Your task to perform on an android device: turn notification dots on Image 0: 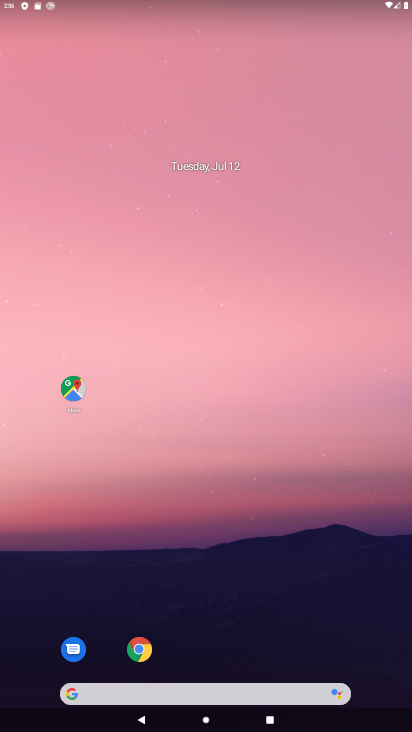
Step 0: drag from (151, 692) to (211, 403)
Your task to perform on an android device: turn notification dots on Image 1: 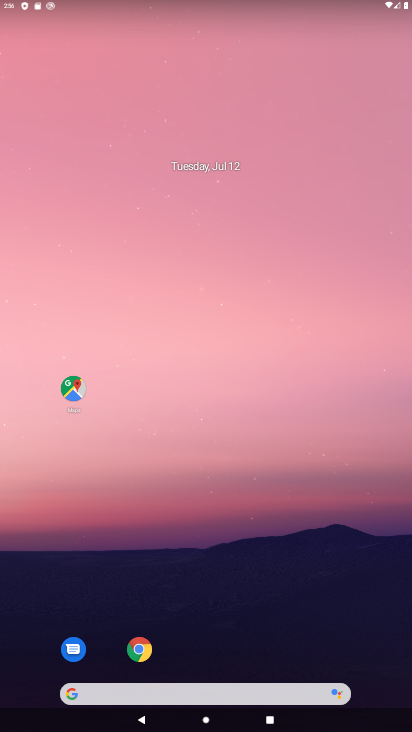
Step 1: drag from (252, 681) to (250, 291)
Your task to perform on an android device: turn notification dots on Image 2: 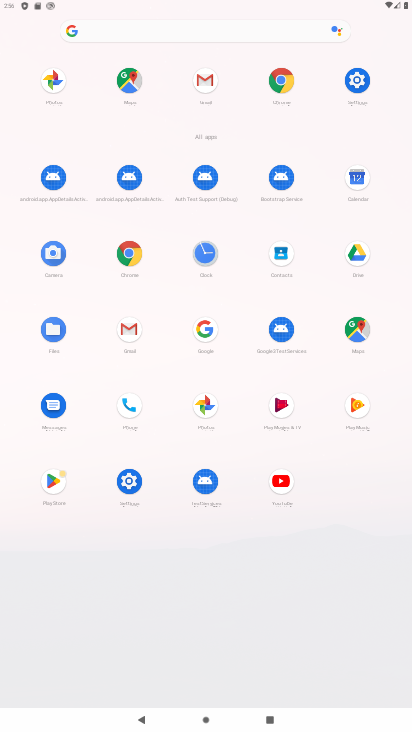
Step 2: click (363, 76)
Your task to perform on an android device: turn notification dots on Image 3: 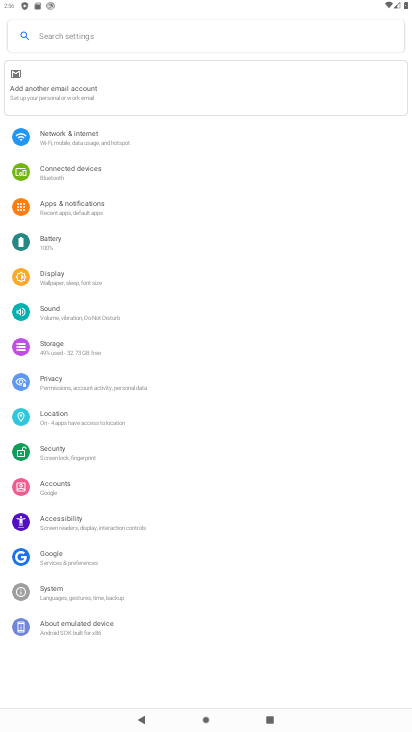
Step 3: click (65, 204)
Your task to perform on an android device: turn notification dots on Image 4: 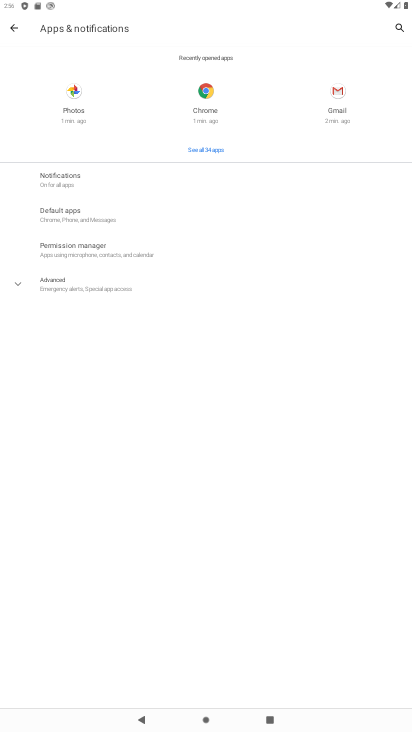
Step 4: click (60, 182)
Your task to perform on an android device: turn notification dots on Image 5: 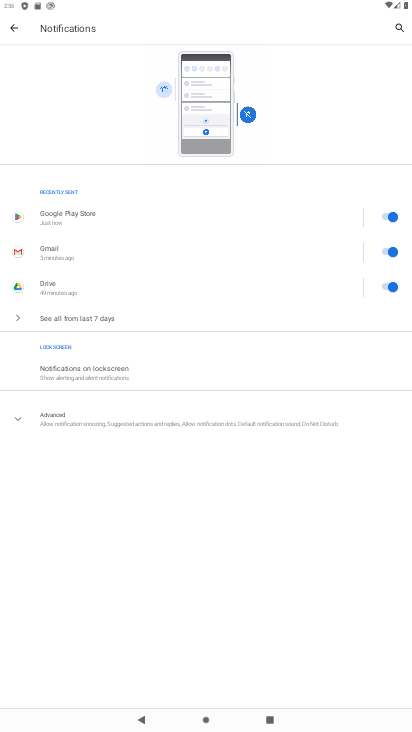
Step 5: click (50, 420)
Your task to perform on an android device: turn notification dots on Image 6: 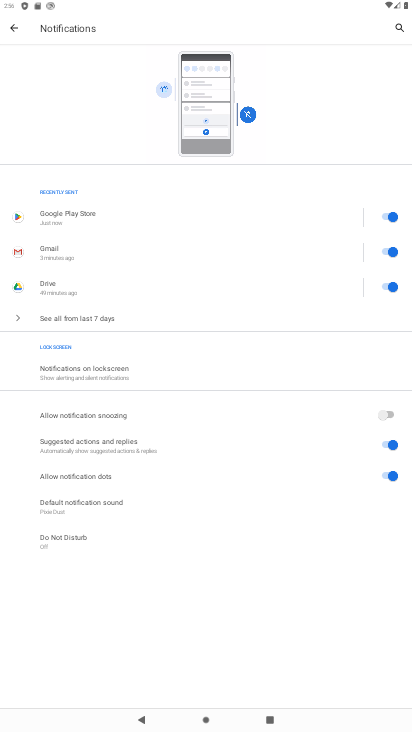
Step 6: task complete